Your task to perform on an android device: delete a single message in the gmail app Image 0: 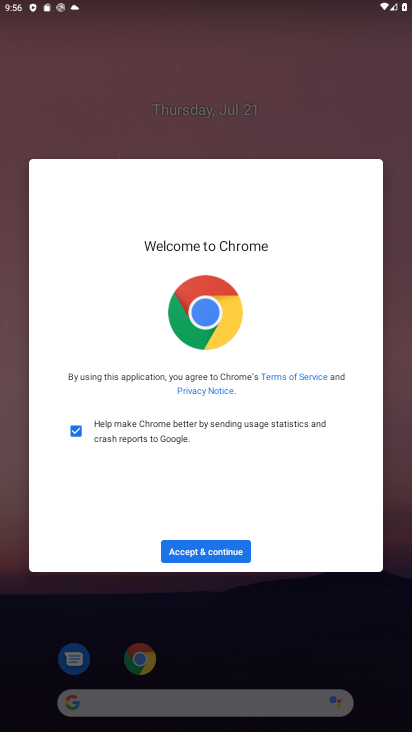
Step 0: task complete